Your task to perform on an android device: turn on priority inbox in the gmail app Image 0: 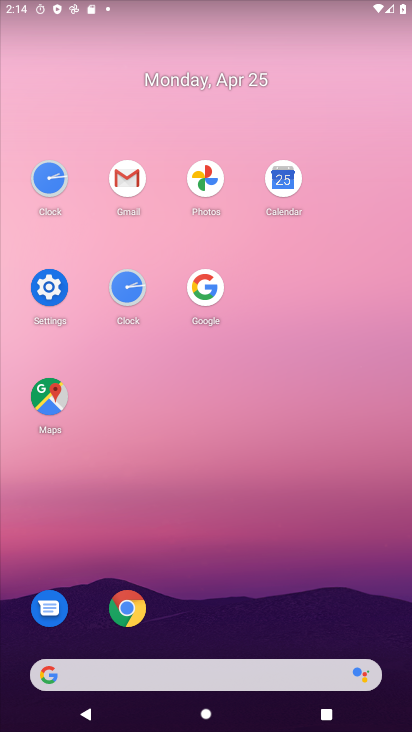
Step 0: click (133, 183)
Your task to perform on an android device: turn on priority inbox in the gmail app Image 1: 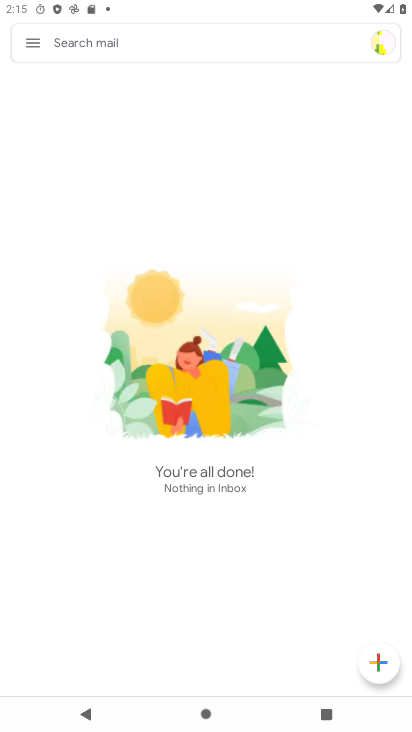
Step 1: press home button
Your task to perform on an android device: turn on priority inbox in the gmail app Image 2: 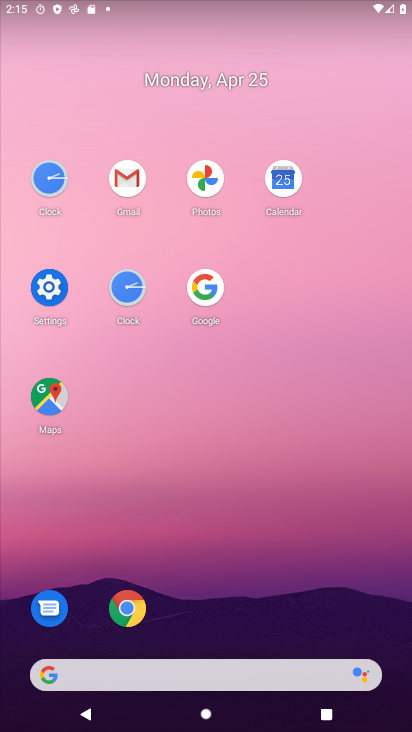
Step 2: click (129, 185)
Your task to perform on an android device: turn on priority inbox in the gmail app Image 3: 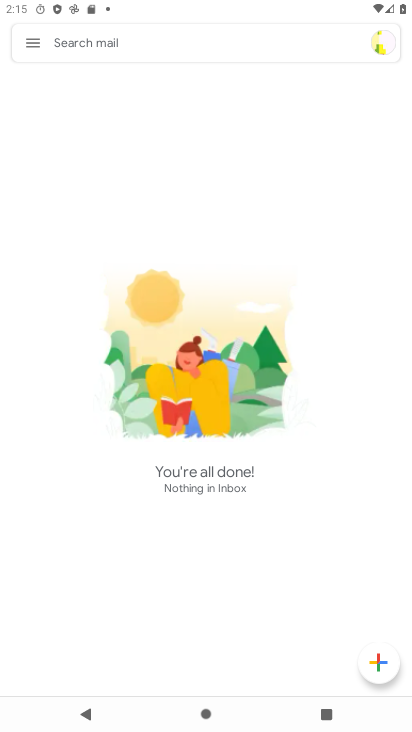
Step 3: click (16, 46)
Your task to perform on an android device: turn on priority inbox in the gmail app Image 4: 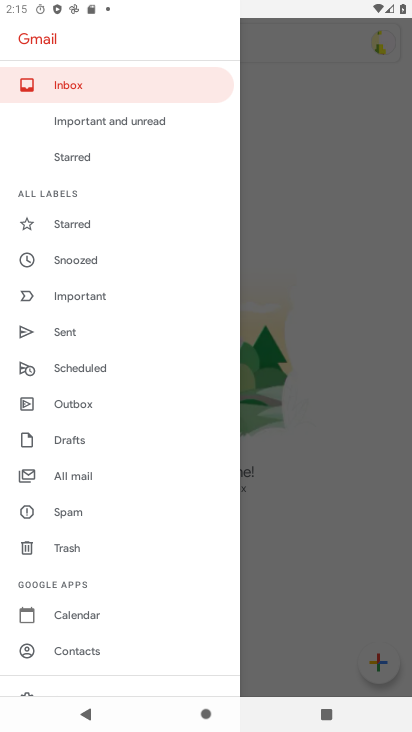
Step 4: drag from (141, 442) to (156, 140)
Your task to perform on an android device: turn on priority inbox in the gmail app Image 5: 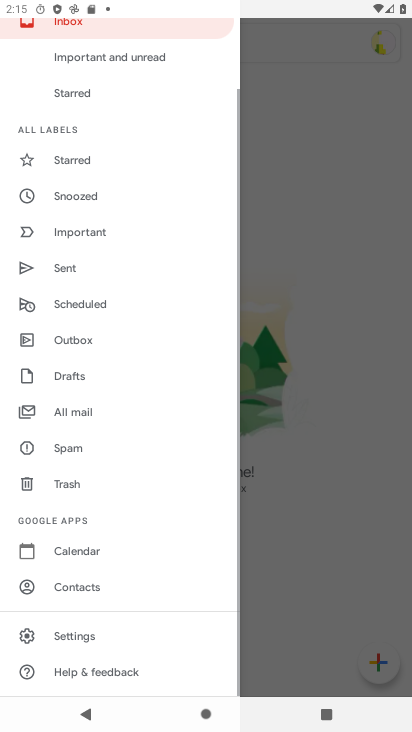
Step 5: click (94, 649)
Your task to perform on an android device: turn on priority inbox in the gmail app Image 6: 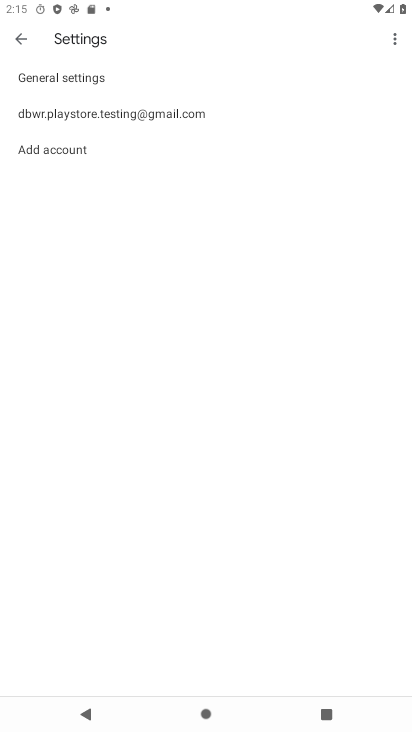
Step 6: click (147, 117)
Your task to perform on an android device: turn on priority inbox in the gmail app Image 7: 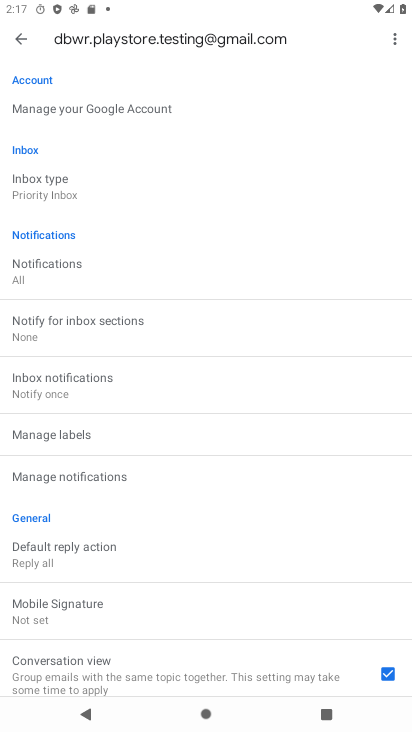
Step 7: task complete